Your task to perform on an android device: find snoozed emails in the gmail app Image 0: 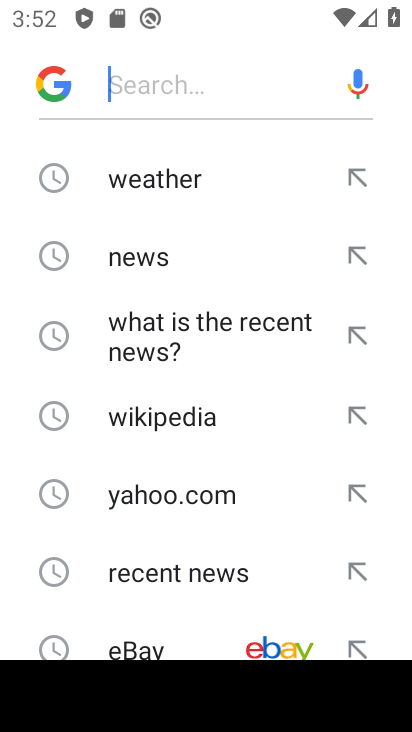
Step 0: press home button
Your task to perform on an android device: find snoozed emails in the gmail app Image 1: 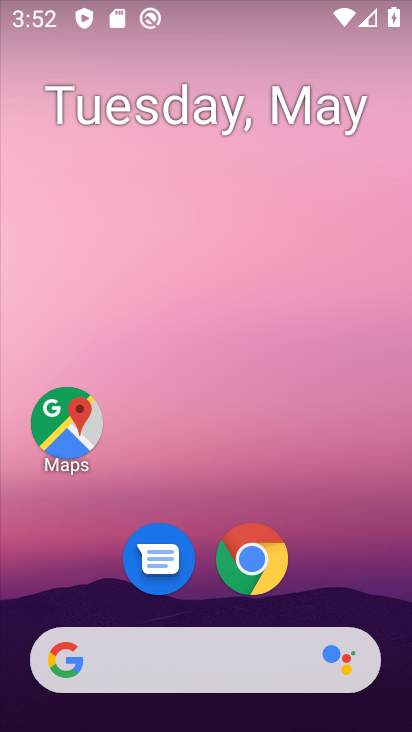
Step 1: drag from (355, 602) to (286, 94)
Your task to perform on an android device: find snoozed emails in the gmail app Image 2: 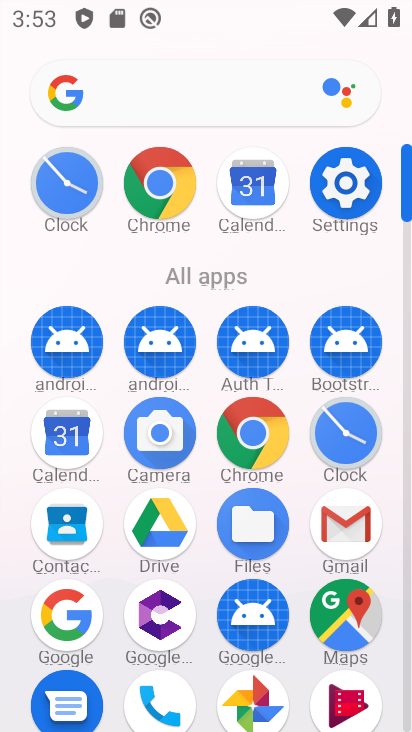
Step 2: click (361, 534)
Your task to perform on an android device: find snoozed emails in the gmail app Image 3: 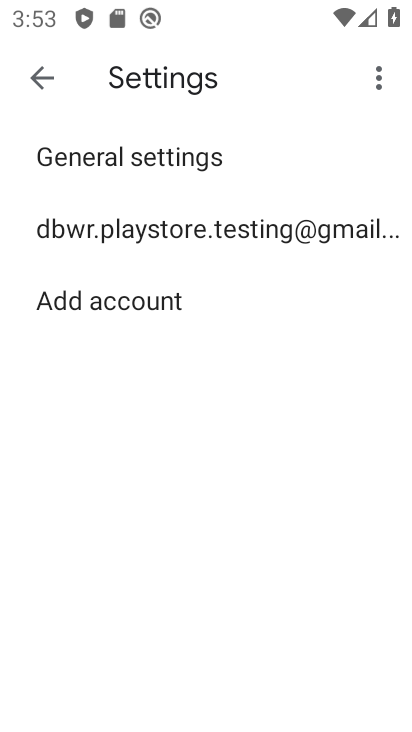
Step 3: click (57, 91)
Your task to perform on an android device: find snoozed emails in the gmail app Image 4: 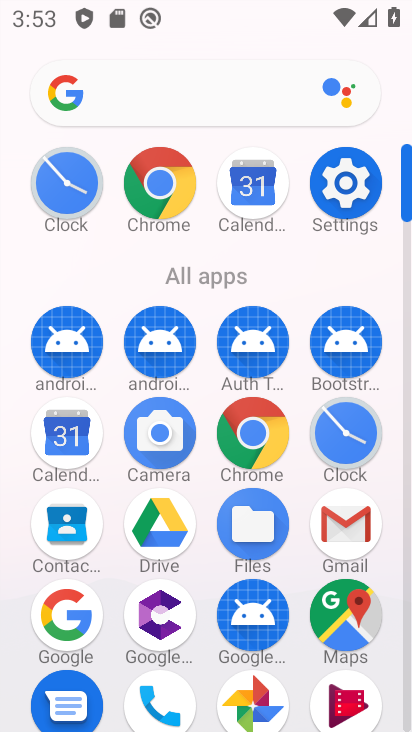
Step 4: click (339, 535)
Your task to perform on an android device: find snoozed emails in the gmail app Image 5: 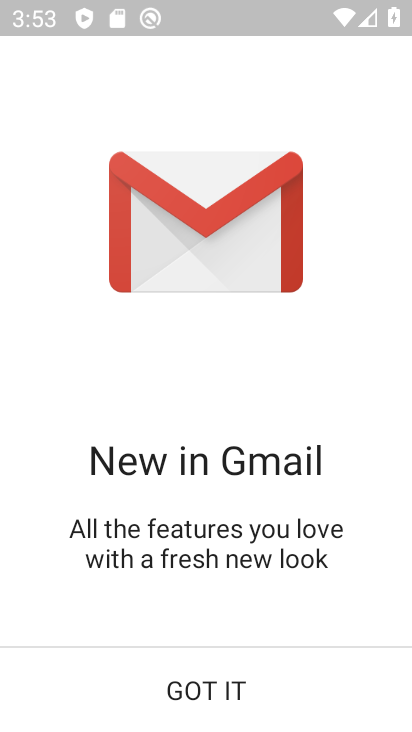
Step 5: click (209, 696)
Your task to perform on an android device: find snoozed emails in the gmail app Image 6: 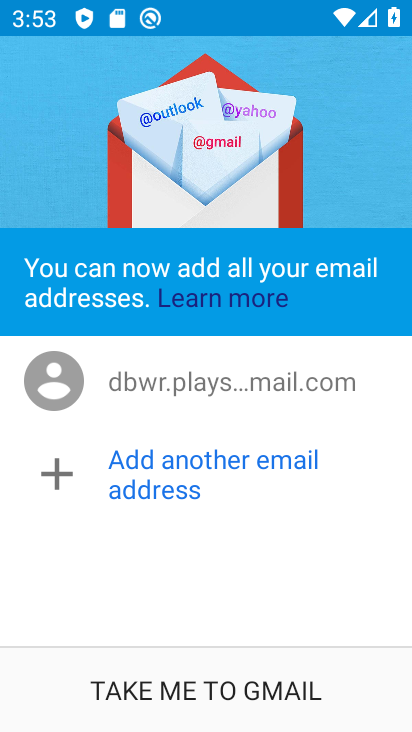
Step 6: click (209, 696)
Your task to perform on an android device: find snoozed emails in the gmail app Image 7: 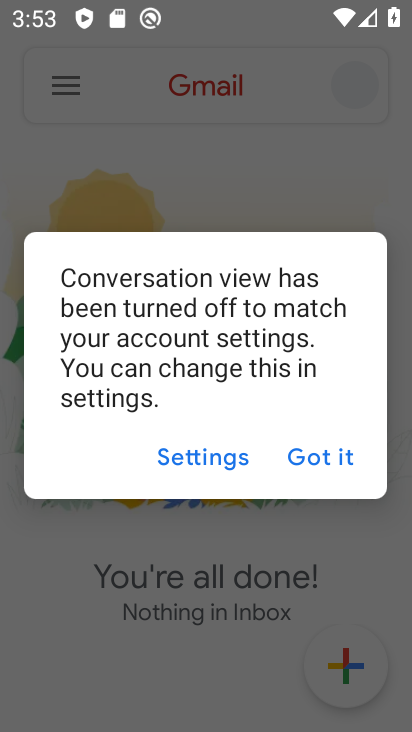
Step 7: click (335, 469)
Your task to perform on an android device: find snoozed emails in the gmail app Image 8: 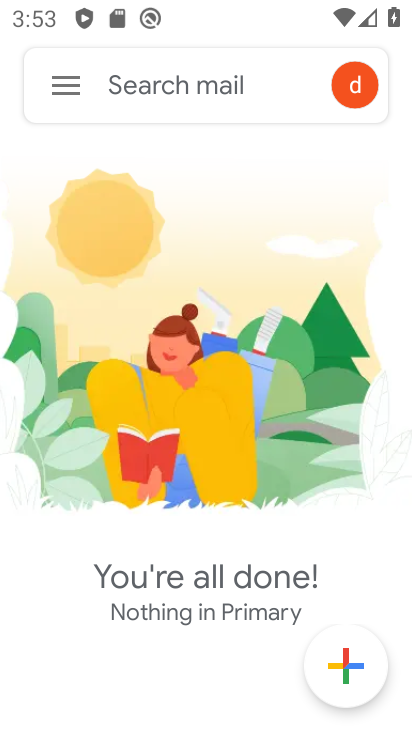
Step 8: click (58, 98)
Your task to perform on an android device: find snoozed emails in the gmail app Image 9: 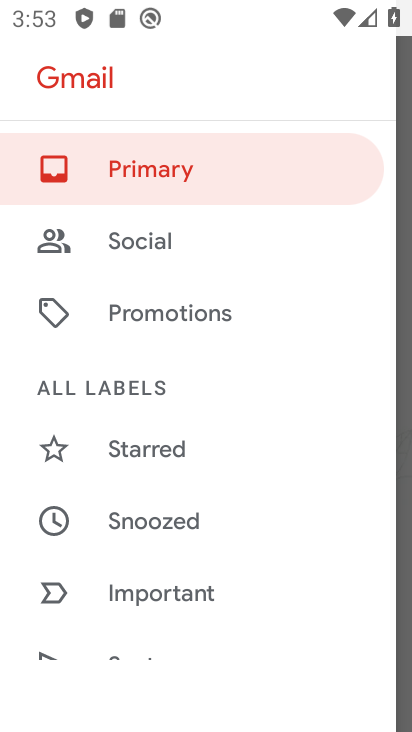
Step 9: click (179, 526)
Your task to perform on an android device: find snoozed emails in the gmail app Image 10: 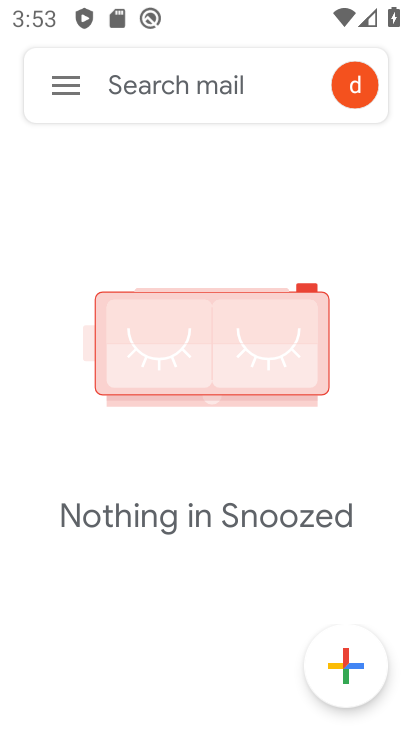
Step 10: task complete